Your task to perform on an android device: What's the weather? Image 0: 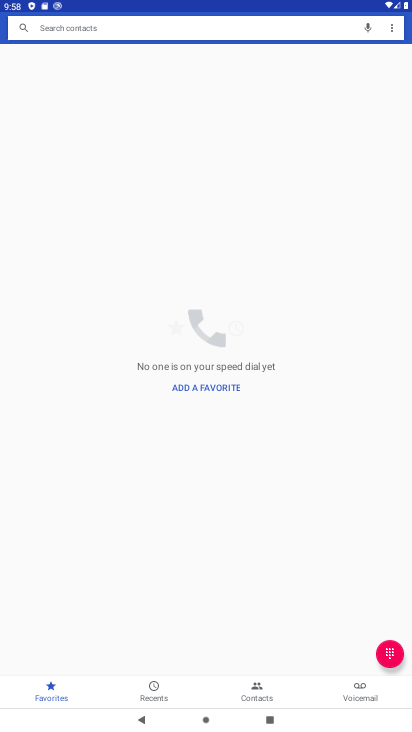
Step 0: press home button
Your task to perform on an android device: What's the weather? Image 1: 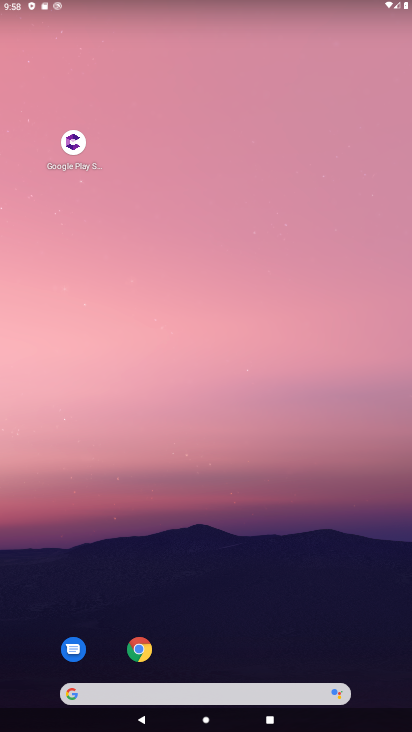
Step 1: drag from (331, 484) to (343, 106)
Your task to perform on an android device: What's the weather? Image 2: 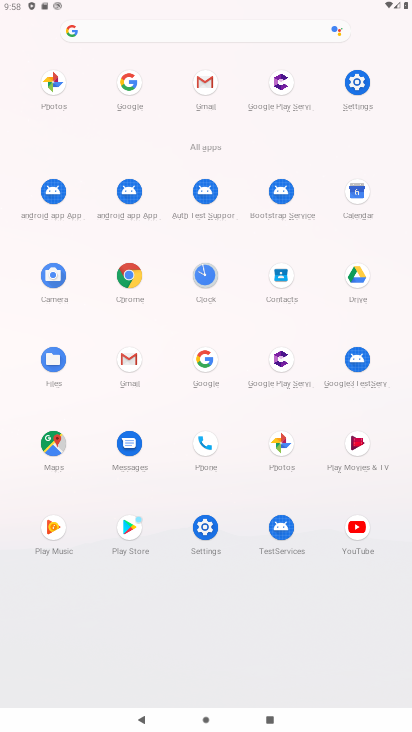
Step 2: click (132, 81)
Your task to perform on an android device: What's the weather? Image 3: 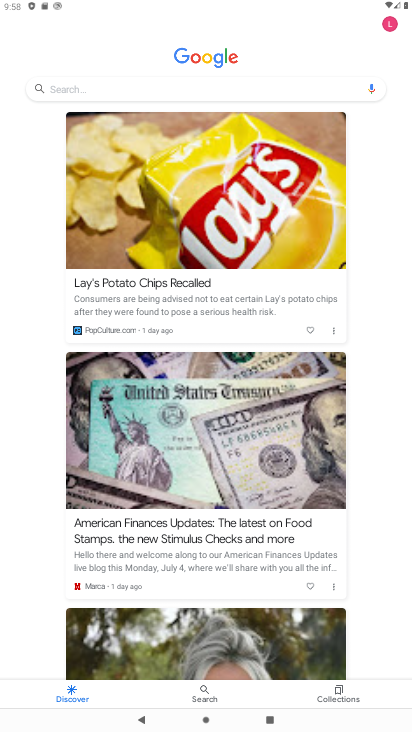
Step 3: click (223, 88)
Your task to perform on an android device: What's the weather? Image 4: 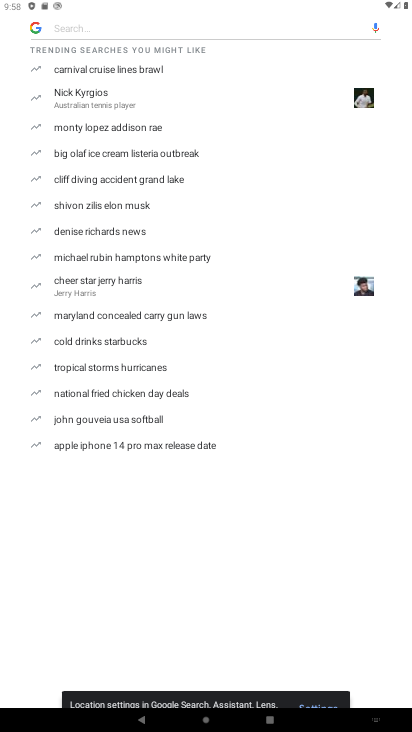
Step 4: type "What's the weather?"
Your task to perform on an android device: What's the weather? Image 5: 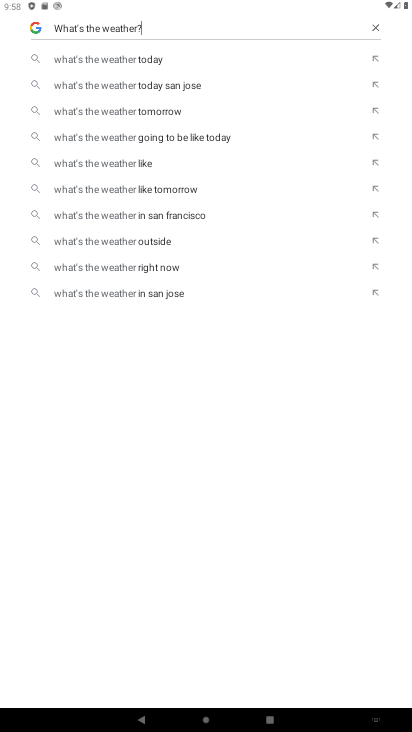
Step 5: click (143, 59)
Your task to perform on an android device: What's the weather? Image 6: 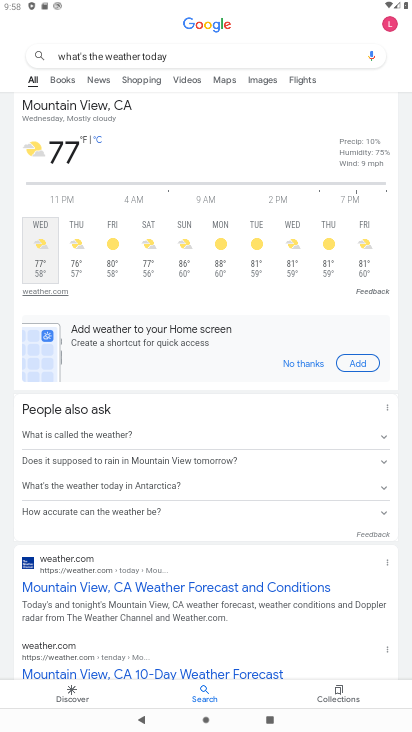
Step 6: task complete